Your task to perform on an android device: What is the news today? Image 0: 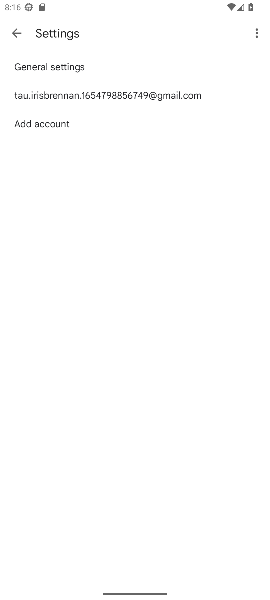
Step 0: press home button
Your task to perform on an android device: What is the news today? Image 1: 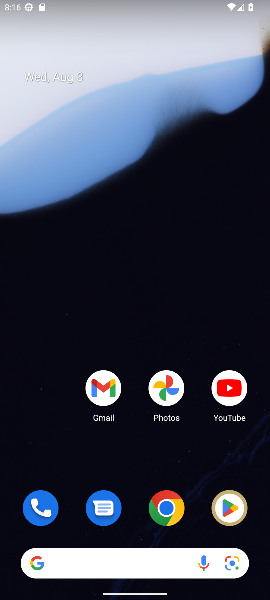
Step 1: drag from (141, 541) to (122, 74)
Your task to perform on an android device: What is the news today? Image 2: 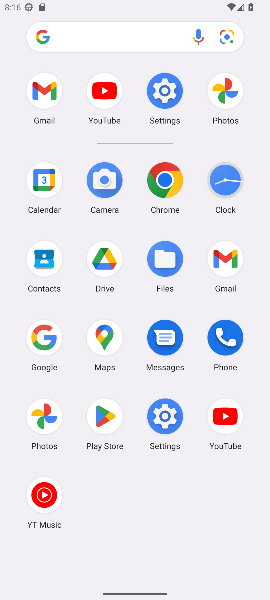
Step 2: click (39, 340)
Your task to perform on an android device: What is the news today? Image 3: 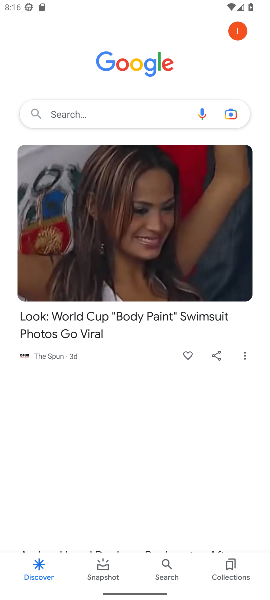
Step 3: click (87, 105)
Your task to perform on an android device: What is the news today? Image 4: 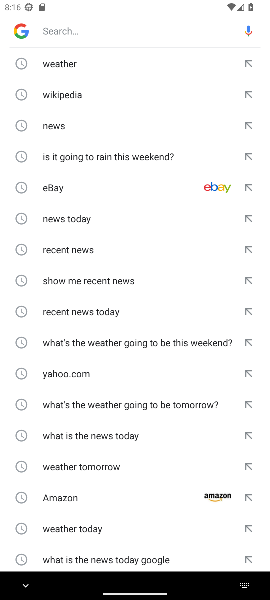
Step 4: click (45, 124)
Your task to perform on an android device: What is the news today? Image 5: 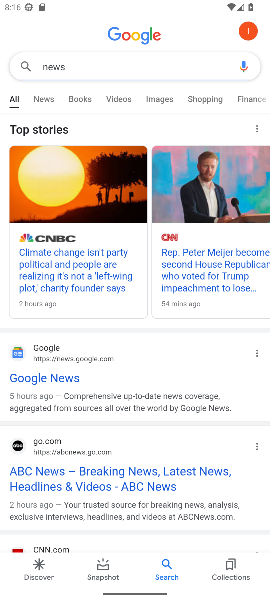
Step 5: click (44, 97)
Your task to perform on an android device: What is the news today? Image 6: 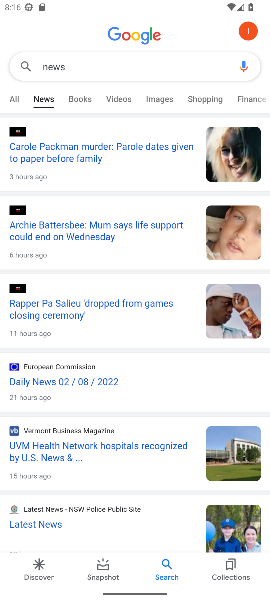
Step 6: task complete